Your task to perform on an android device: turn off airplane mode Image 0: 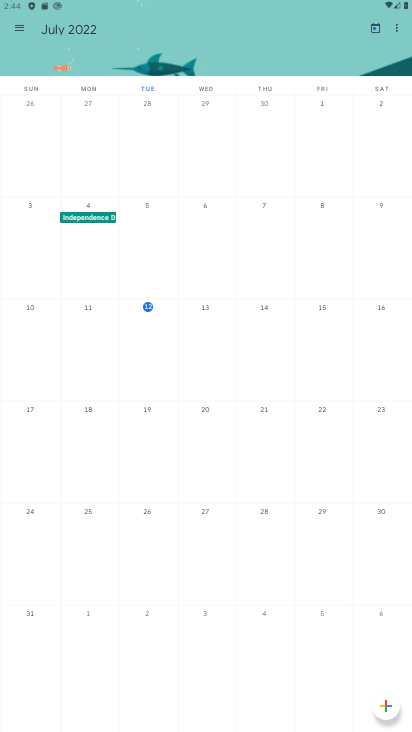
Step 0: click (171, 704)
Your task to perform on an android device: turn off airplane mode Image 1: 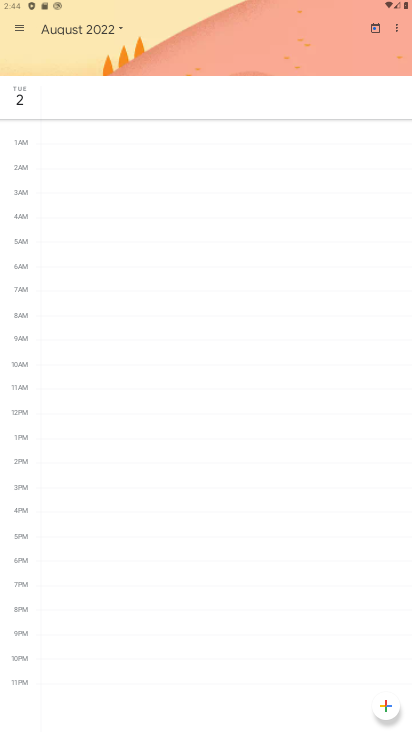
Step 1: press home button
Your task to perform on an android device: turn off airplane mode Image 2: 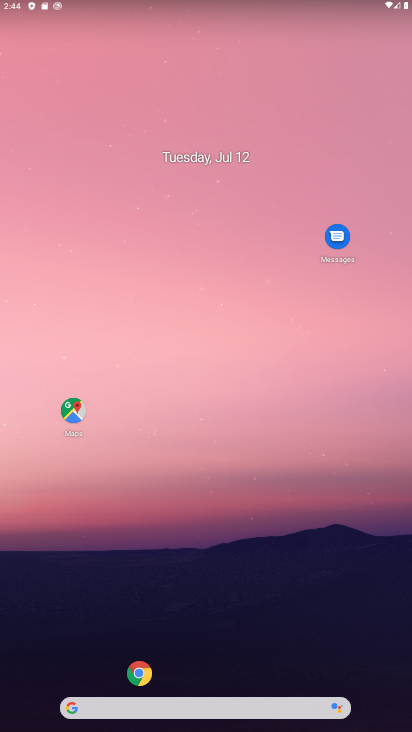
Step 2: drag from (215, 146) to (301, 0)
Your task to perform on an android device: turn off airplane mode Image 3: 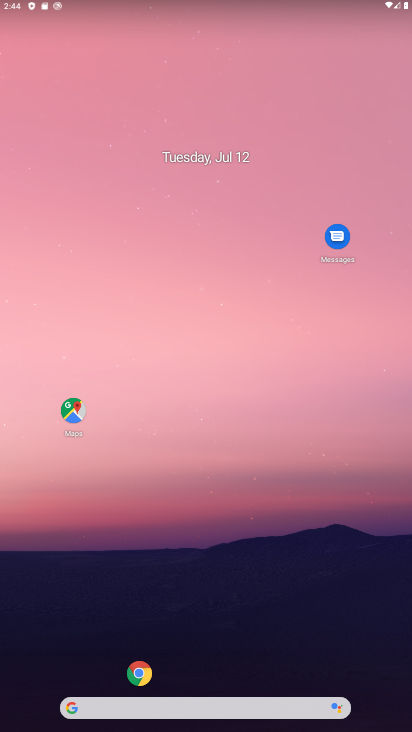
Step 3: drag from (60, 661) to (186, 84)
Your task to perform on an android device: turn off airplane mode Image 4: 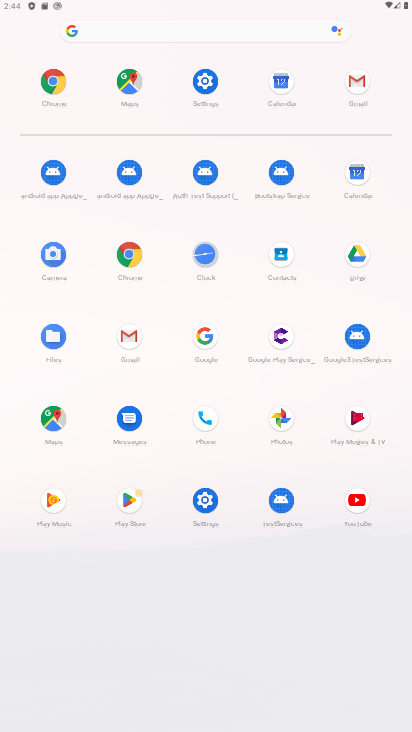
Step 4: click (198, 499)
Your task to perform on an android device: turn off airplane mode Image 5: 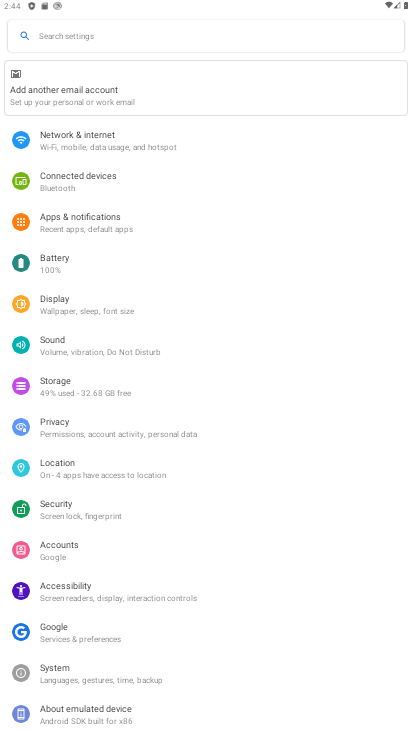
Step 5: click (69, 136)
Your task to perform on an android device: turn off airplane mode Image 6: 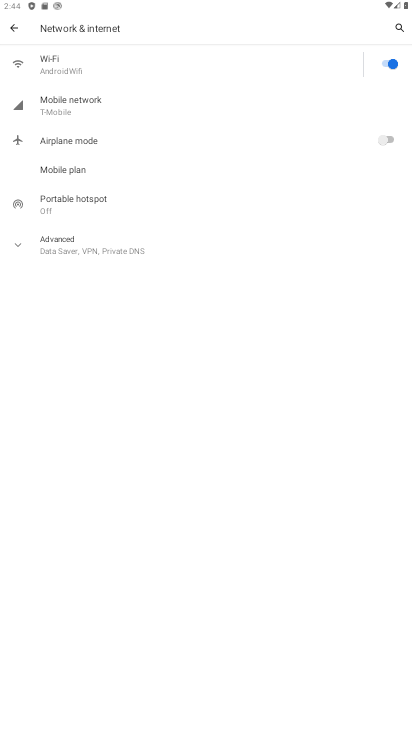
Step 6: task complete